Your task to perform on an android device: What is the recent news? Image 0: 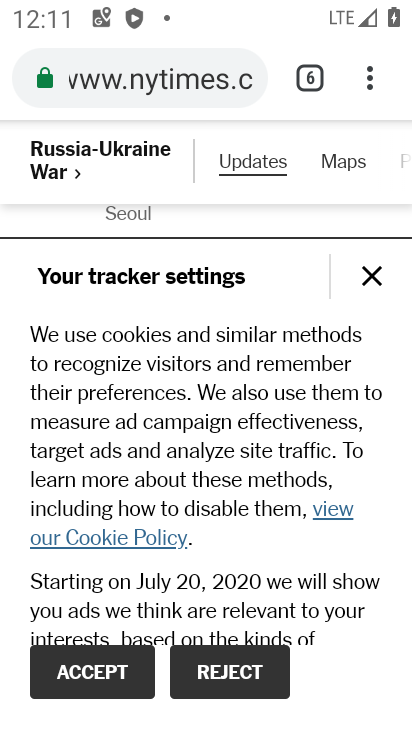
Step 0: drag from (160, 359) to (191, 579)
Your task to perform on an android device: What is the recent news? Image 1: 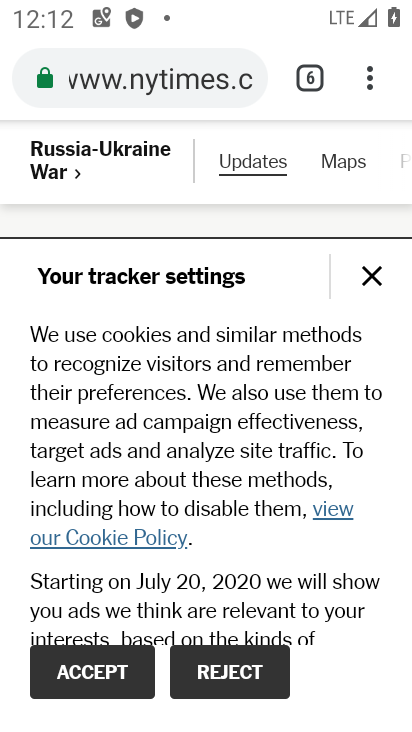
Step 1: task complete